Your task to perform on an android device: What's the weather going to be tomorrow? Image 0: 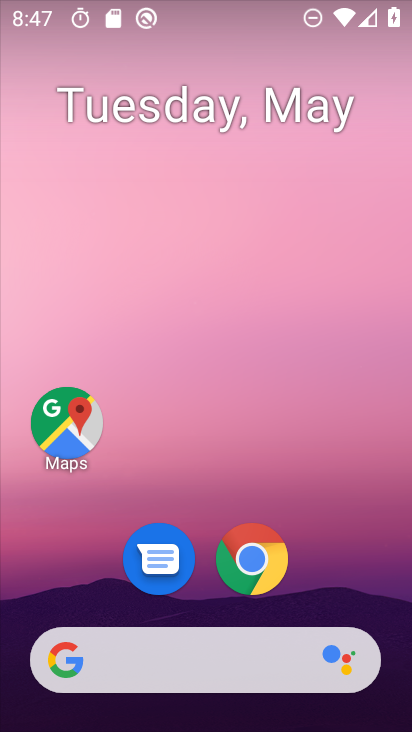
Step 0: click (386, 612)
Your task to perform on an android device: What's the weather going to be tomorrow? Image 1: 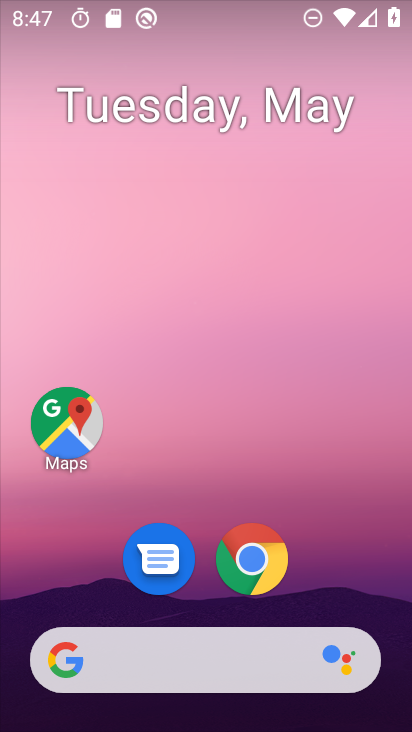
Step 1: drag from (374, 614) to (154, 29)
Your task to perform on an android device: What's the weather going to be tomorrow? Image 2: 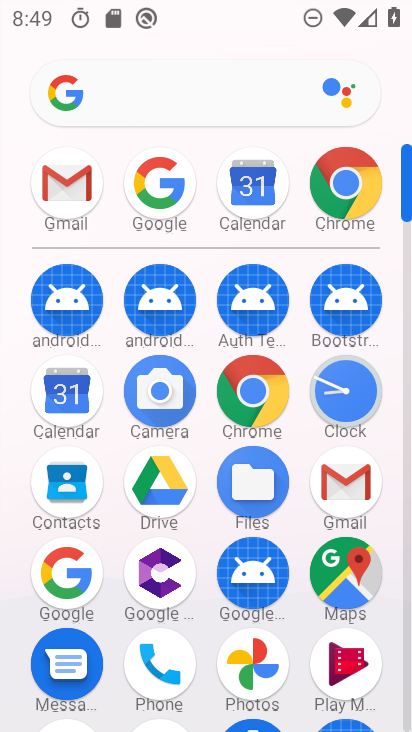
Step 2: click (50, 569)
Your task to perform on an android device: What's the weather going to be tomorrow? Image 3: 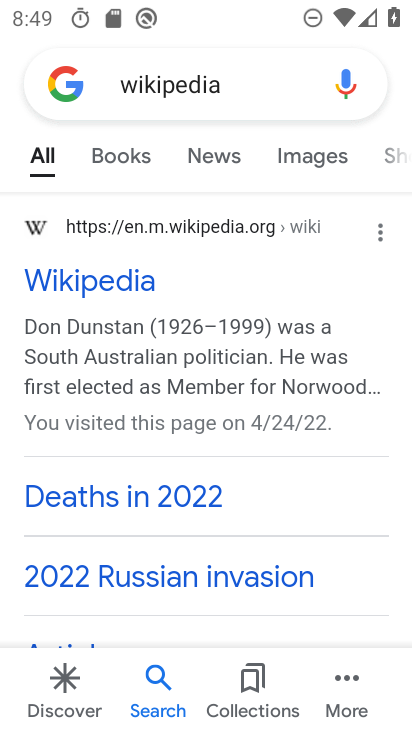
Step 3: press back button
Your task to perform on an android device: What's the weather going to be tomorrow? Image 4: 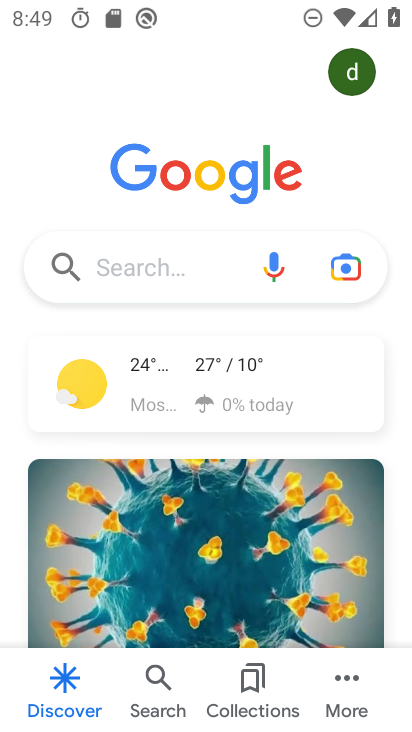
Step 4: click (120, 256)
Your task to perform on an android device: What's the weather going to be tomorrow? Image 5: 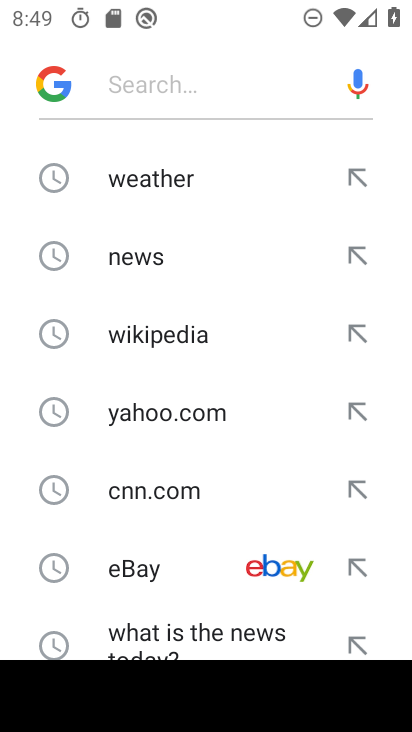
Step 5: drag from (133, 613) to (171, 85)
Your task to perform on an android device: What's the weather going to be tomorrow? Image 6: 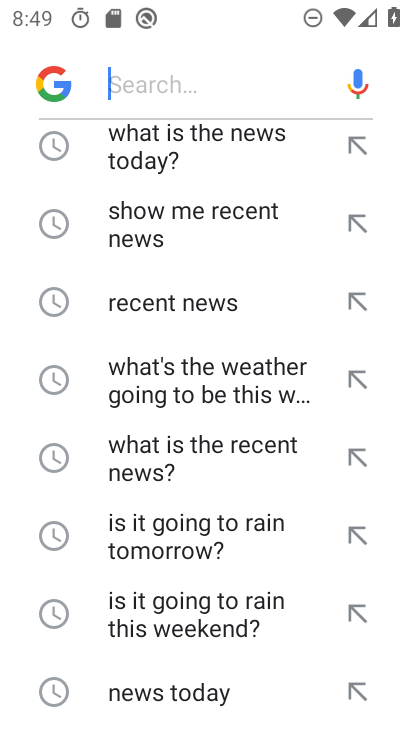
Step 6: drag from (197, 642) to (209, 205)
Your task to perform on an android device: What's the weather going to be tomorrow? Image 7: 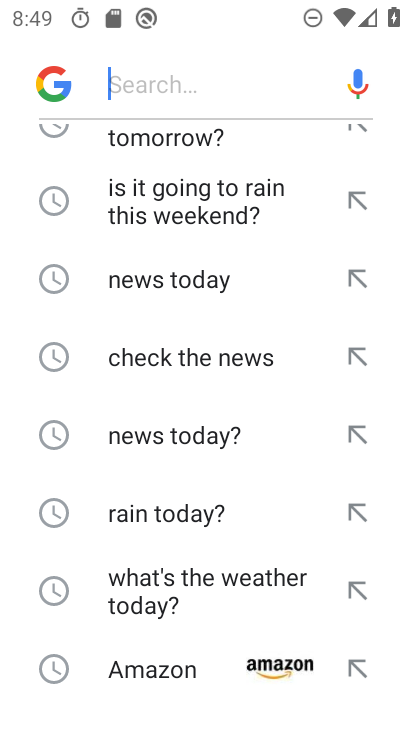
Step 7: drag from (184, 611) to (194, 138)
Your task to perform on an android device: What's the weather going to be tomorrow? Image 8: 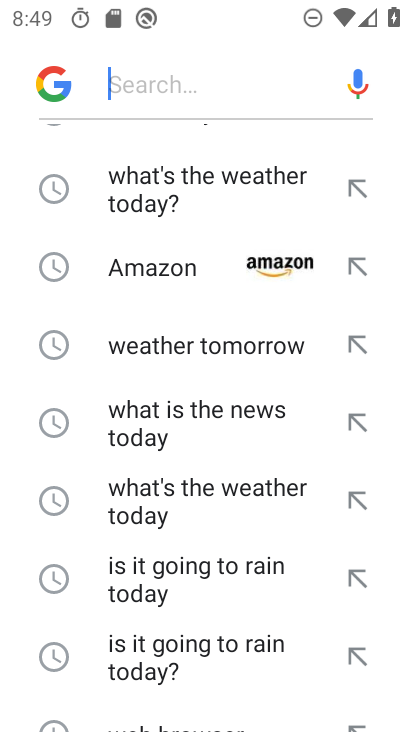
Step 8: drag from (196, 577) to (207, 218)
Your task to perform on an android device: What's the weather going to be tomorrow? Image 9: 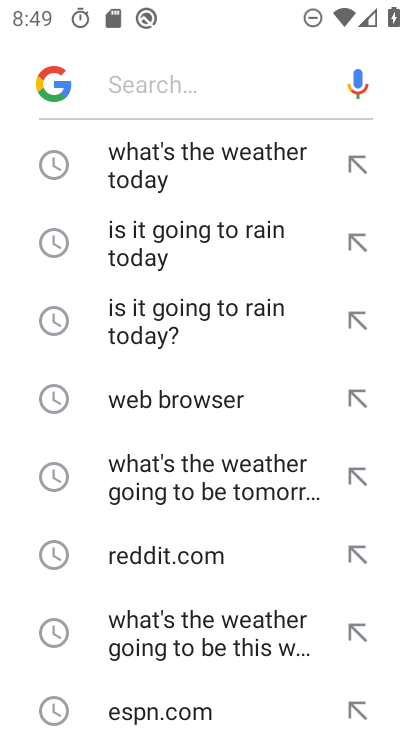
Step 9: click (195, 482)
Your task to perform on an android device: What's the weather going to be tomorrow? Image 10: 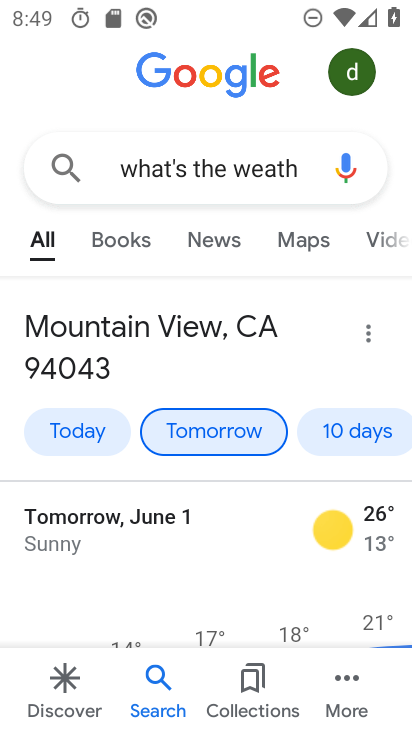
Step 10: task complete